Your task to perform on an android device: turn on airplane mode Image 0: 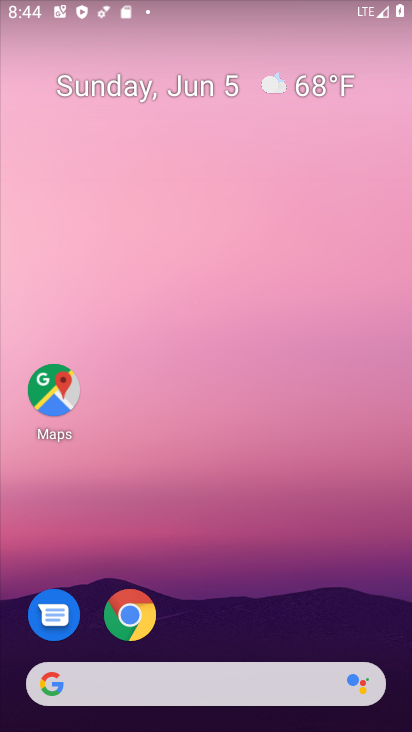
Step 0: drag from (239, 688) to (278, 4)
Your task to perform on an android device: turn on airplane mode Image 1: 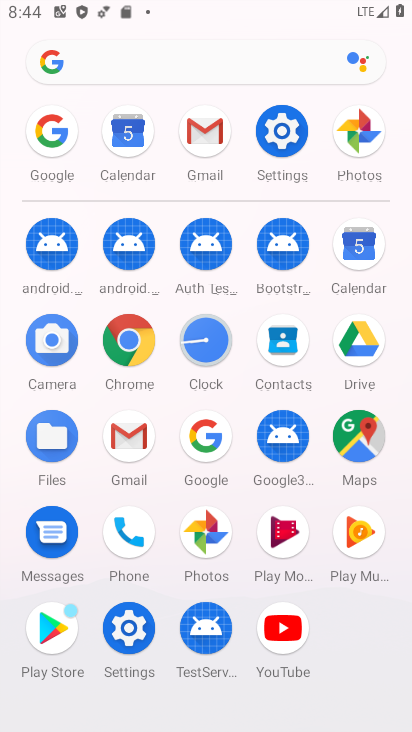
Step 1: click (255, 121)
Your task to perform on an android device: turn on airplane mode Image 2: 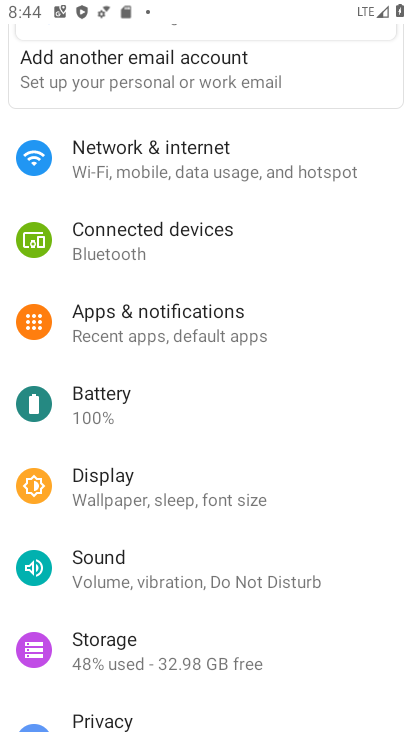
Step 2: click (221, 159)
Your task to perform on an android device: turn on airplane mode Image 3: 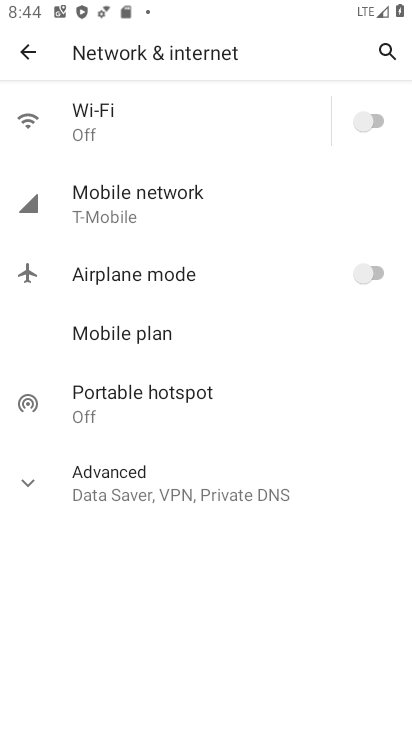
Step 3: click (369, 274)
Your task to perform on an android device: turn on airplane mode Image 4: 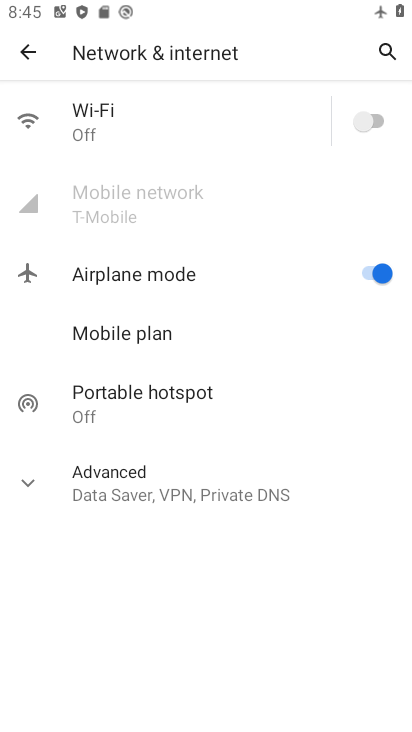
Step 4: task complete